Your task to perform on an android device: Open Android settings Image 0: 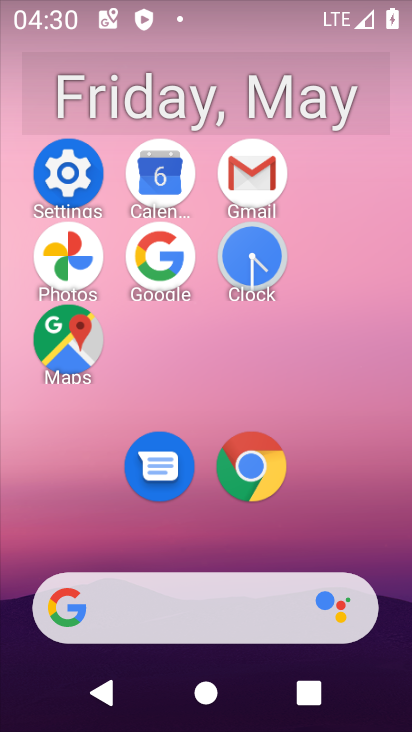
Step 0: click (71, 166)
Your task to perform on an android device: Open Android settings Image 1: 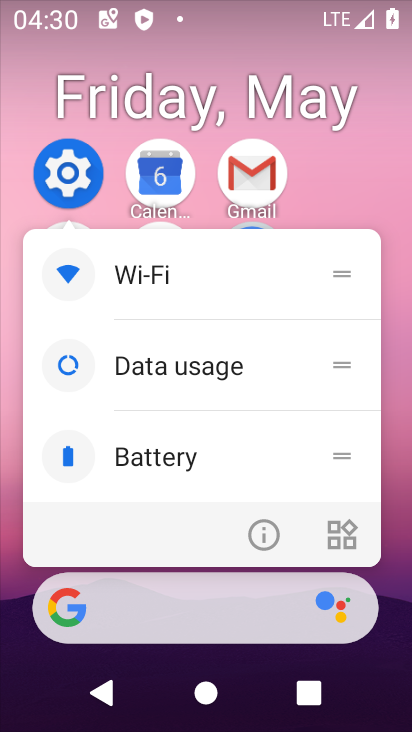
Step 1: click (83, 165)
Your task to perform on an android device: Open Android settings Image 2: 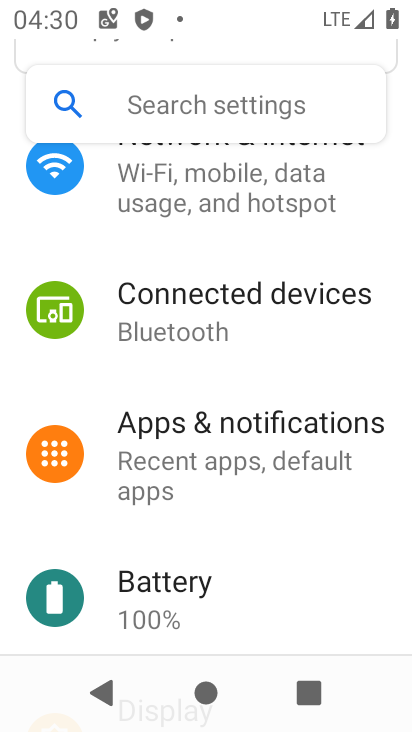
Step 2: task complete